Your task to perform on an android device: Open Chrome and go to the settings page Image 0: 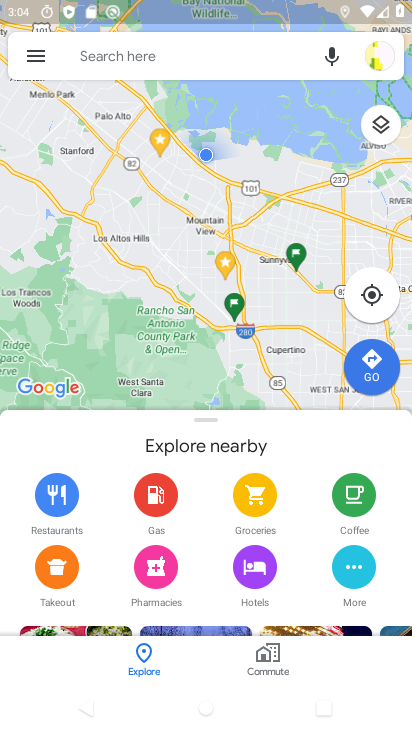
Step 0: press home button
Your task to perform on an android device: Open Chrome and go to the settings page Image 1: 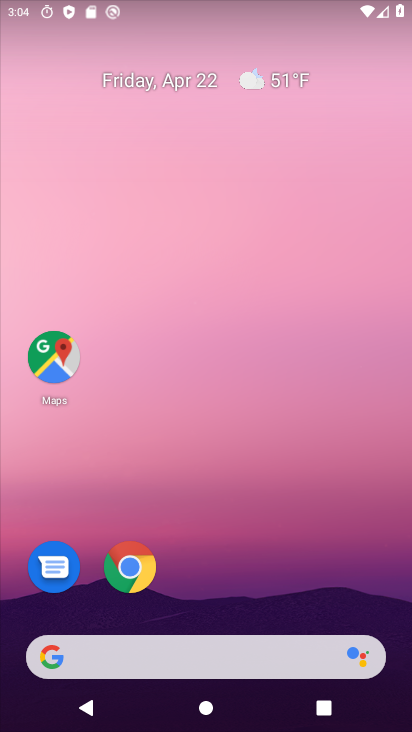
Step 1: click (128, 518)
Your task to perform on an android device: Open Chrome and go to the settings page Image 2: 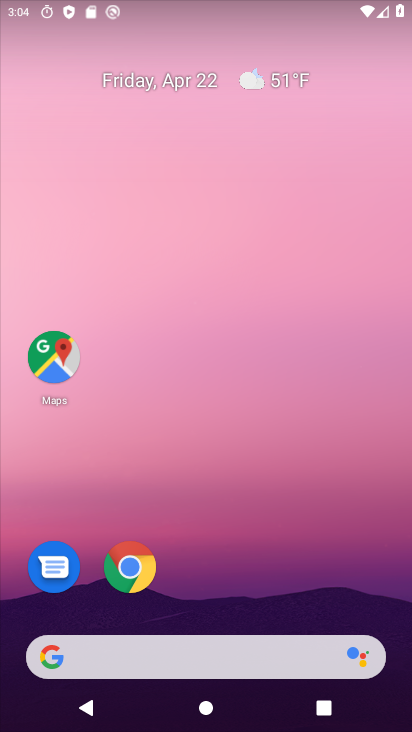
Step 2: click (128, 558)
Your task to perform on an android device: Open Chrome and go to the settings page Image 3: 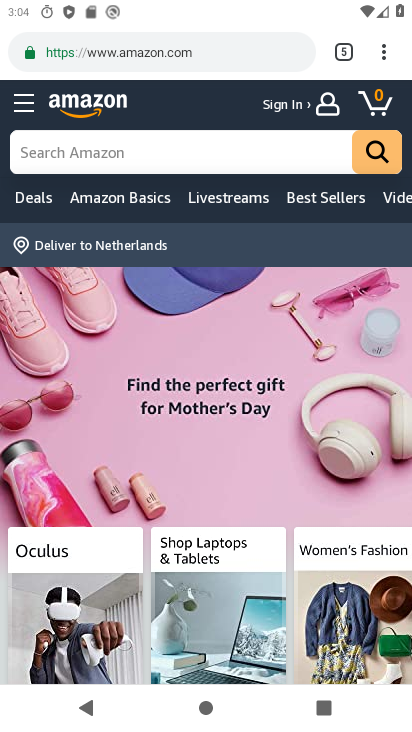
Step 3: click (381, 54)
Your task to perform on an android device: Open Chrome and go to the settings page Image 4: 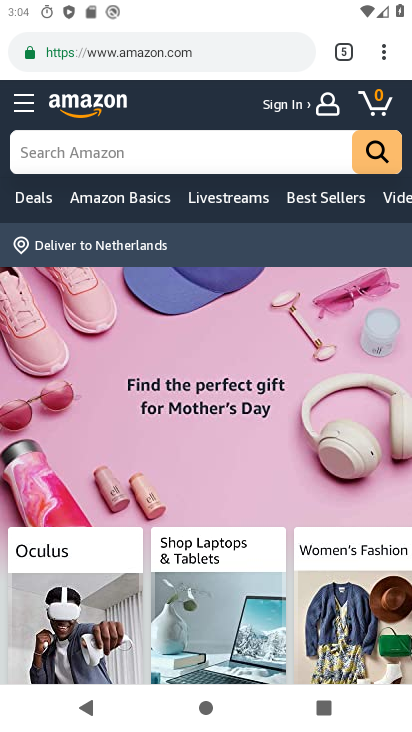
Step 4: click (383, 56)
Your task to perform on an android device: Open Chrome and go to the settings page Image 5: 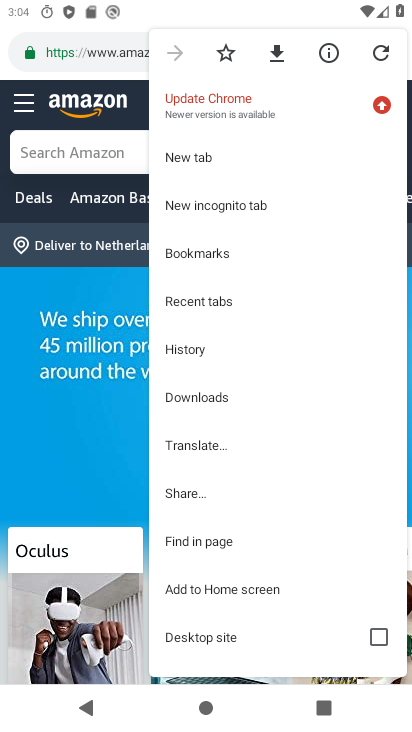
Step 5: drag from (277, 539) to (298, 215)
Your task to perform on an android device: Open Chrome and go to the settings page Image 6: 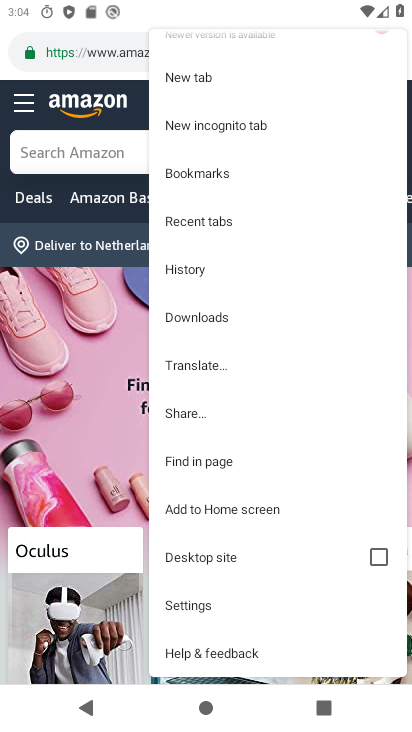
Step 6: click (231, 609)
Your task to perform on an android device: Open Chrome and go to the settings page Image 7: 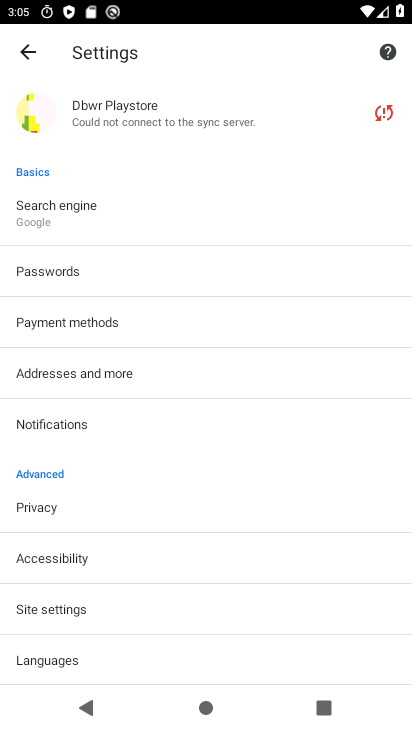
Step 7: task complete